Your task to perform on an android device: turn off notifications in google photos Image 0: 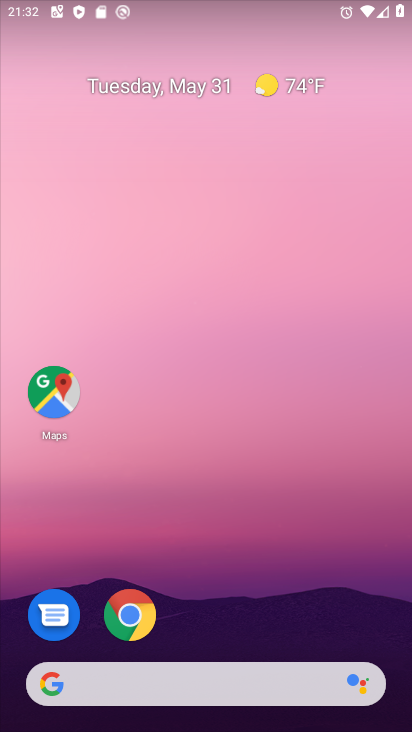
Step 0: drag from (192, 604) to (178, 175)
Your task to perform on an android device: turn off notifications in google photos Image 1: 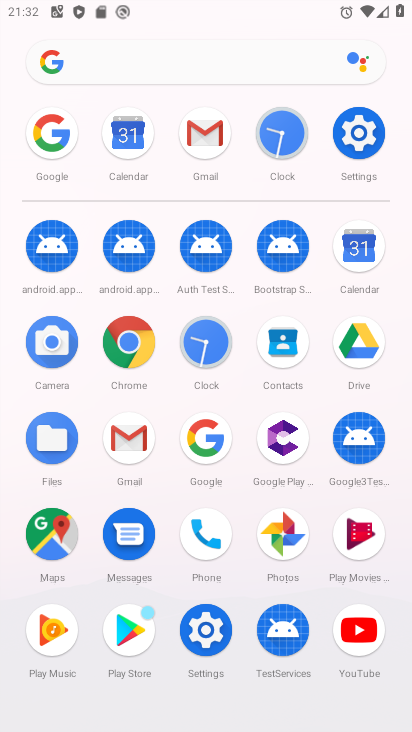
Step 1: click (264, 535)
Your task to perform on an android device: turn off notifications in google photos Image 2: 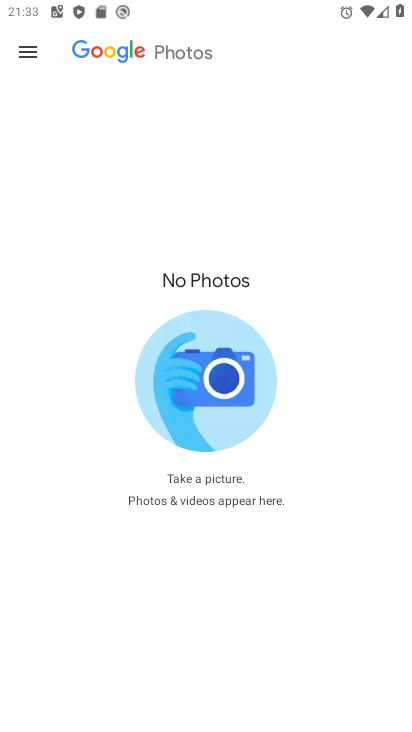
Step 2: press home button
Your task to perform on an android device: turn off notifications in google photos Image 3: 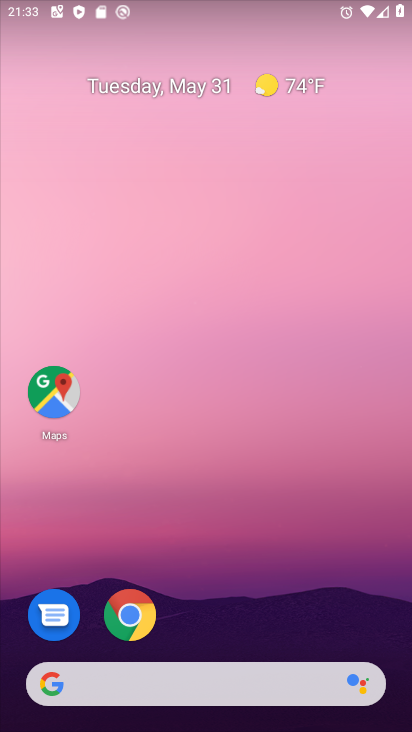
Step 3: drag from (225, 536) to (223, 165)
Your task to perform on an android device: turn off notifications in google photos Image 4: 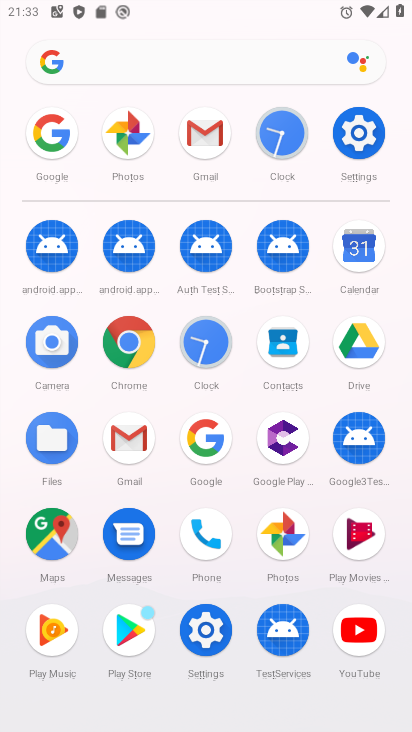
Step 4: click (120, 129)
Your task to perform on an android device: turn off notifications in google photos Image 5: 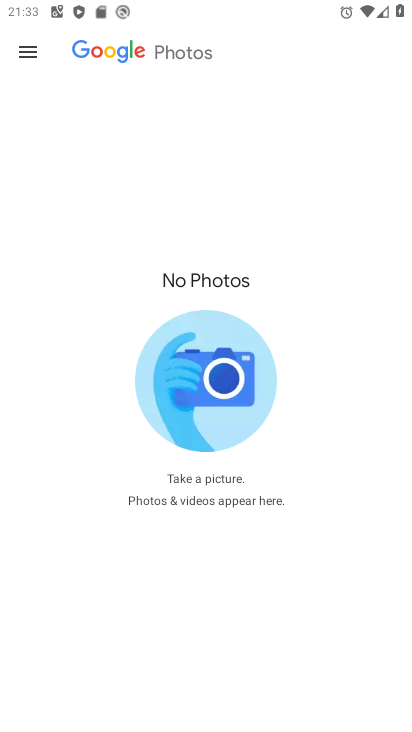
Step 5: click (23, 47)
Your task to perform on an android device: turn off notifications in google photos Image 6: 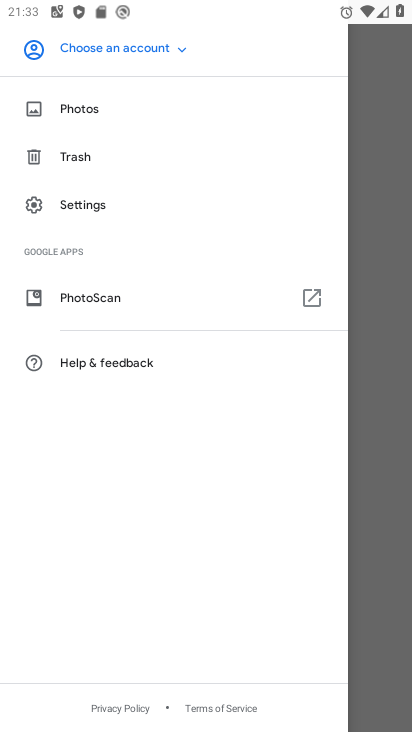
Step 6: click (90, 205)
Your task to perform on an android device: turn off notifications in google photos Image 7: 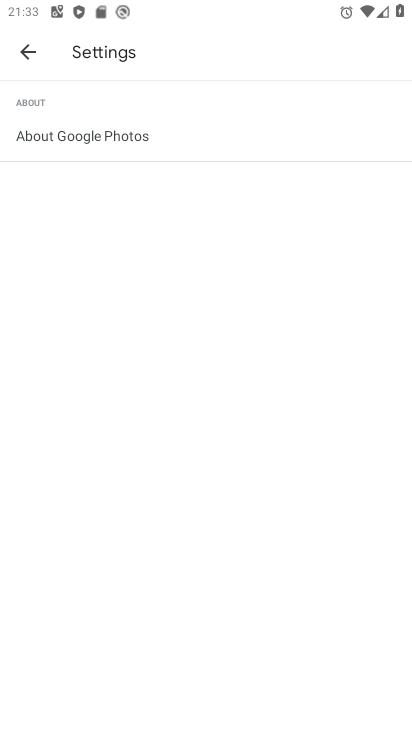
Step 7: click (23, 43)
Your task to perform on an android device: turn off notifications in google photos Image 8: 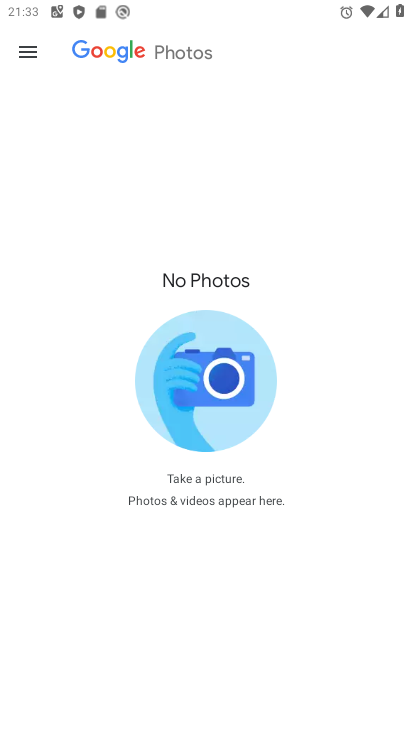
Step 8: click (21, 53)
Your task to perform on an android device: turn off notifications in google photos Image 9: 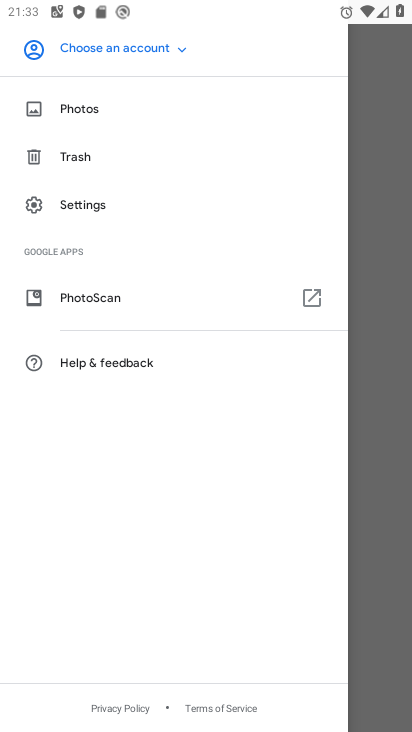
Step 9: click (178, 52)
Your task to perform on an android device: turn off notifications in google photos Image 10: 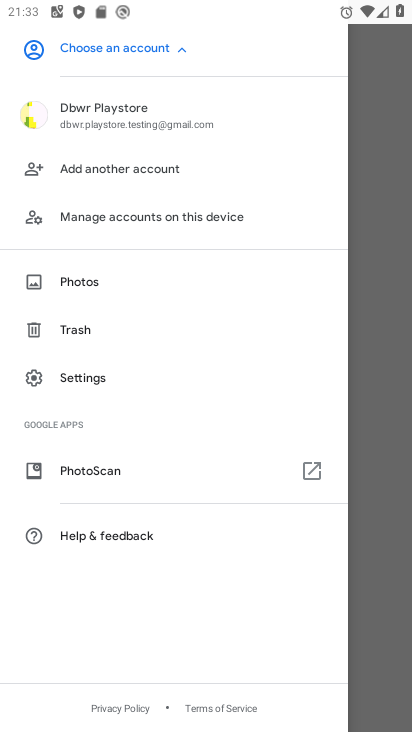
Step 10: click (137, 124)
Your task to perform on an android device: turn off notifications in google photos Image 11: 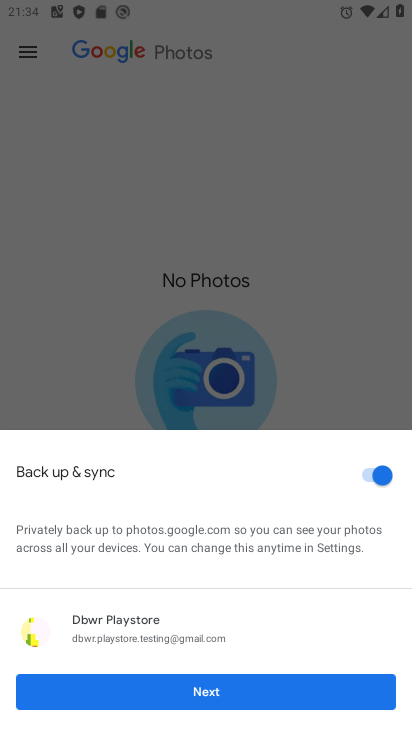
Step 11: click (202, 680)
Your task to perform on an android device: turn off notifications in google photos Image 12: 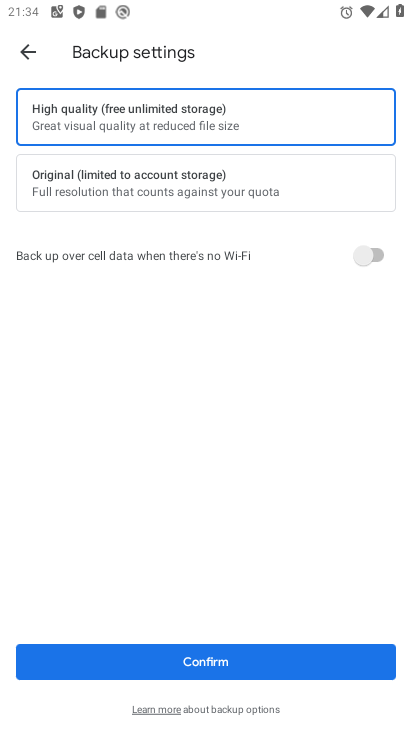
Step 12: click (186, 657)
Your task to perform on an android device: turn off notifications in google photos Image 13: 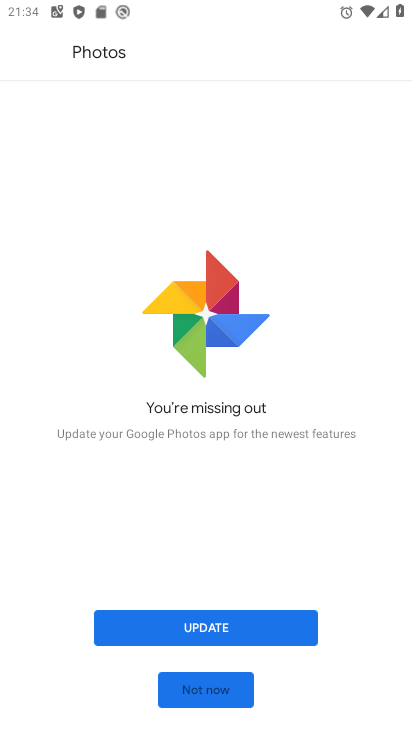
Step 13: click (223, 680)
Your task to perform on an android device: turn off notifications in google photos Image 14: 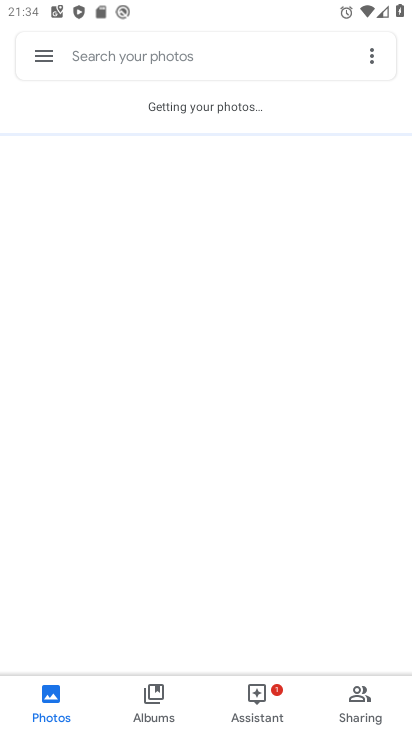
Step 14: click (56, 61)
Your task to perform on an android device: turn off notifications in google photos Image 15: 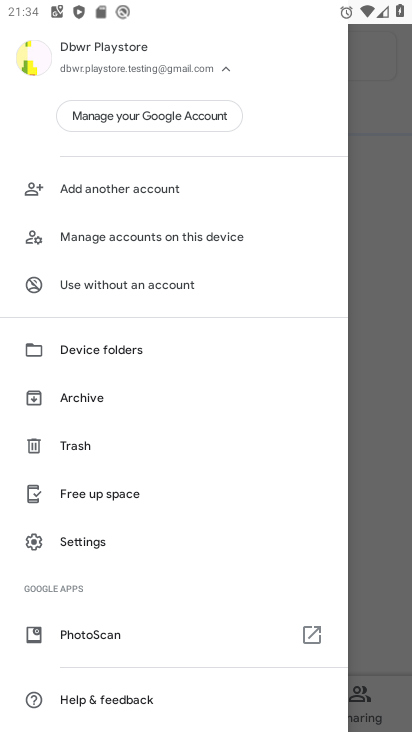
Step 15: click (88, 532)
Your task to perform on an android device: turn off notifications in google photos Image 16: 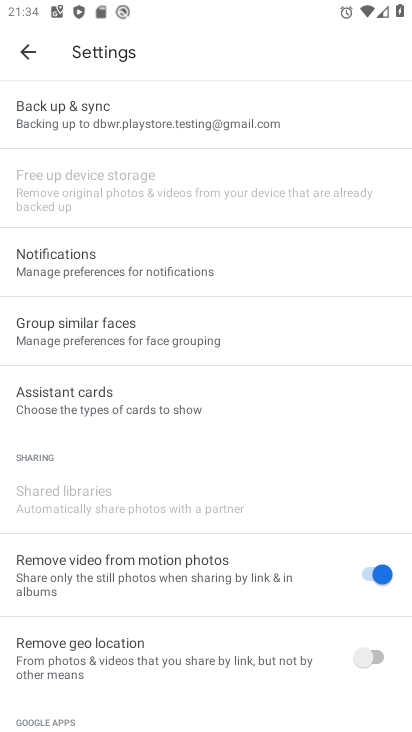
Step 16: drag from (192, 659) to (246, 340)
Your task to perform on an android device: turn off notifications in google photos Image 17: 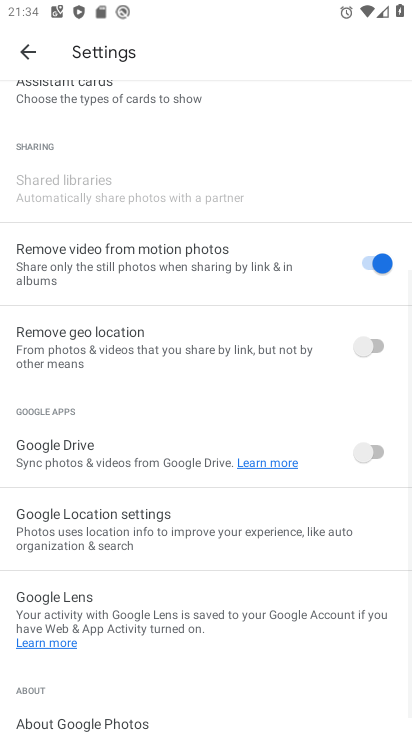
Step 17: drag from (151, 649) to (155, 317)
Your task to perform on an android device: turn off notifications in google photos Image 18: 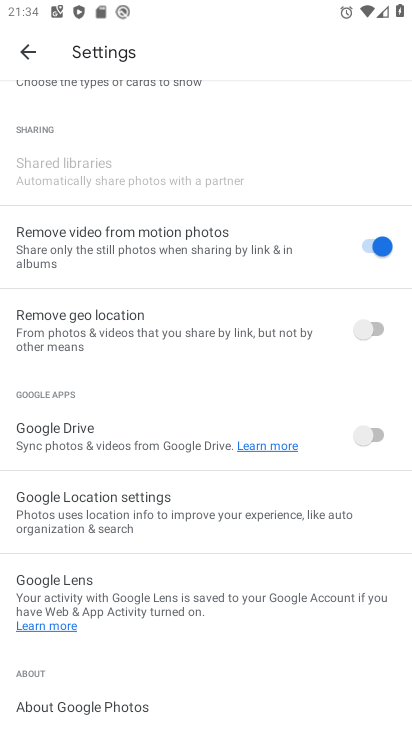
Step 18: drag from (115, 656) to (149, 291)
Your task to perform on an android device: turn off notifications in google photos Image 19: 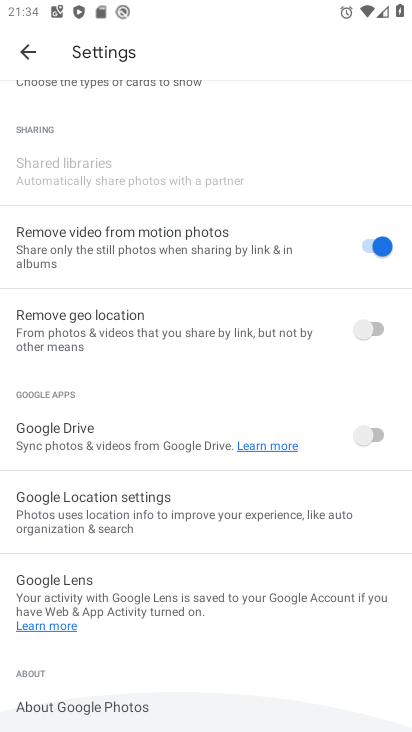
Step 19: drag from (160, 520) to (164, 704)
Your task to perform on an android device: turn off notifications in google photos Image 20: 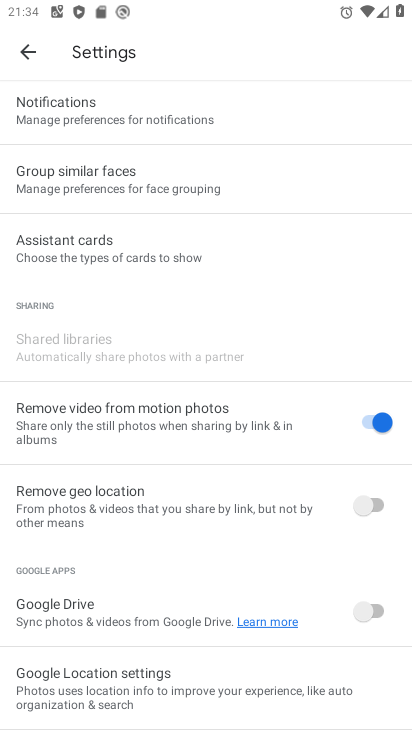
Step 20: drag from (192, 273) to (221, 541)
Your task to perform on an android device: turn off notifications in google photos Image 21: 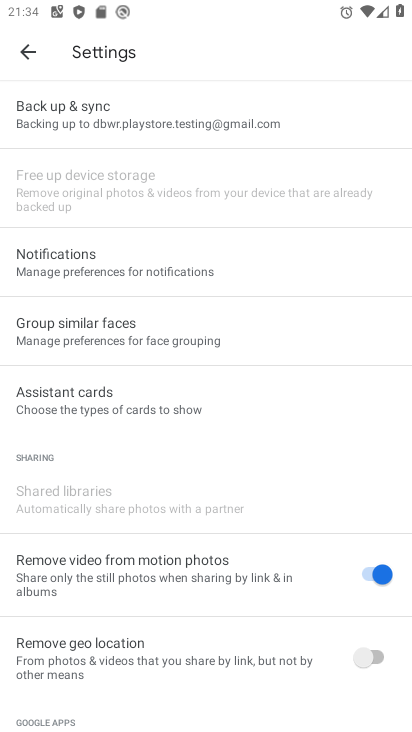
Step 21: click (159, 277)
Your task to perform on an android device: turn off notifications in google photos Image 22: 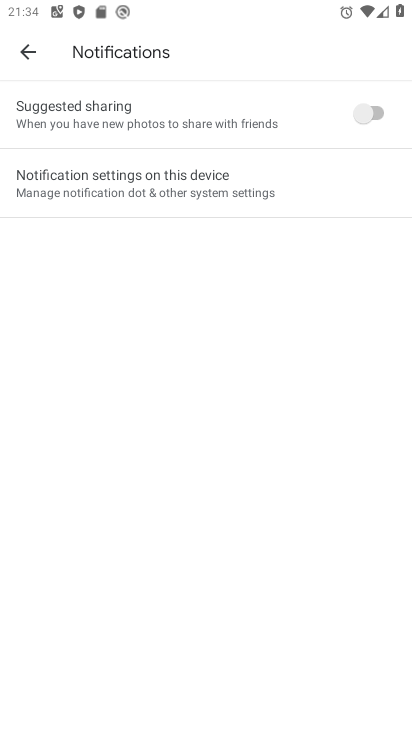
Step 22: click (167, 200)
Your task to perform on an android device: turn off notifications in google photos Image 23: 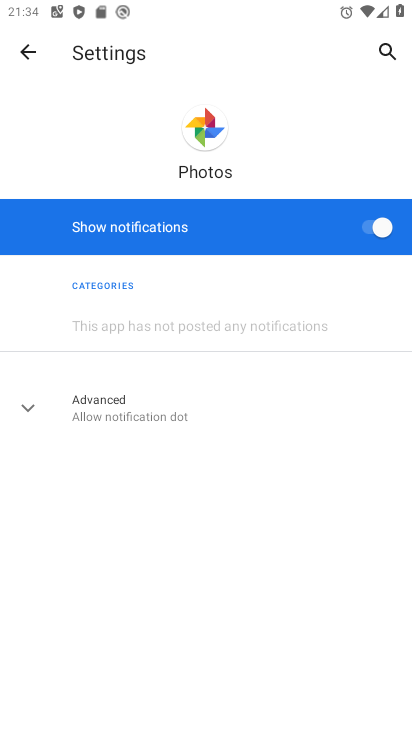
Step 23: click (375, 230)
Your task to perform on an android device: turn off notifications in google photos Image 24: 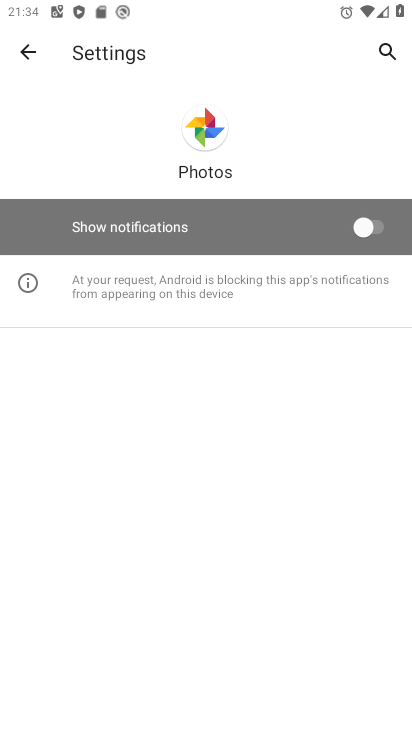
Step 24: task complete